Your task to perform on an android device: Check the weather Image 0: 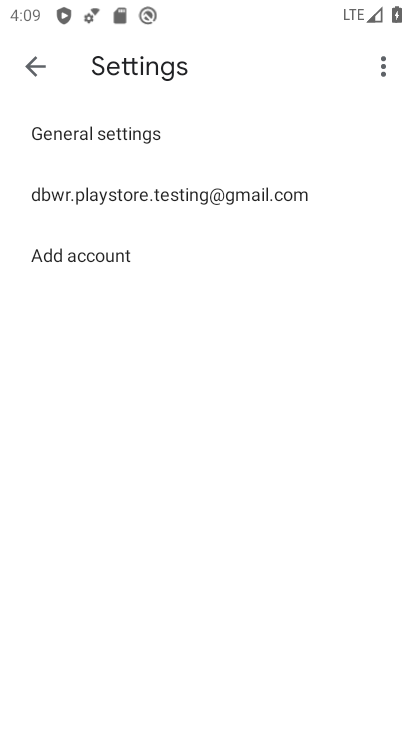
Step 0: press home button
Your task to perform on an android device: Check the weather Image 1: 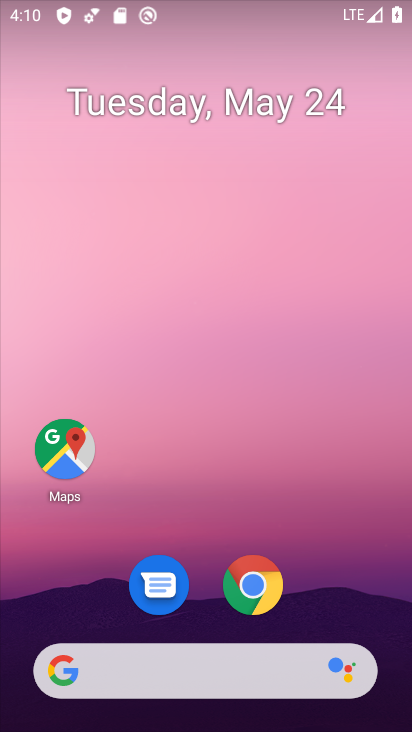
Step 1: click (225, 677)
Your task to perform on an android device: Check the weather Image 2: 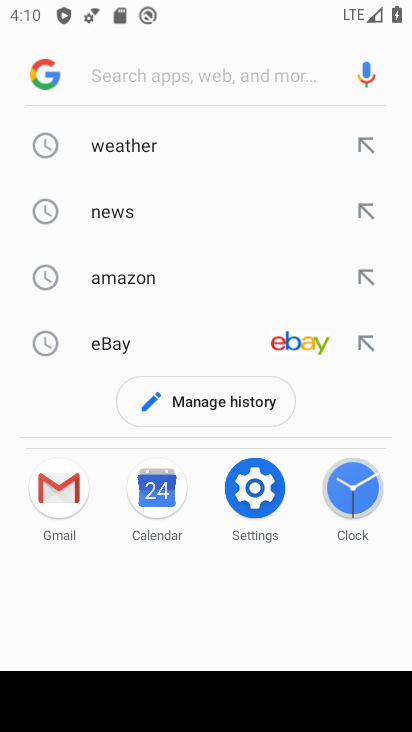
Step 2: click (112, 147)
Your task to perform on an android device: Check the weather Image 3: 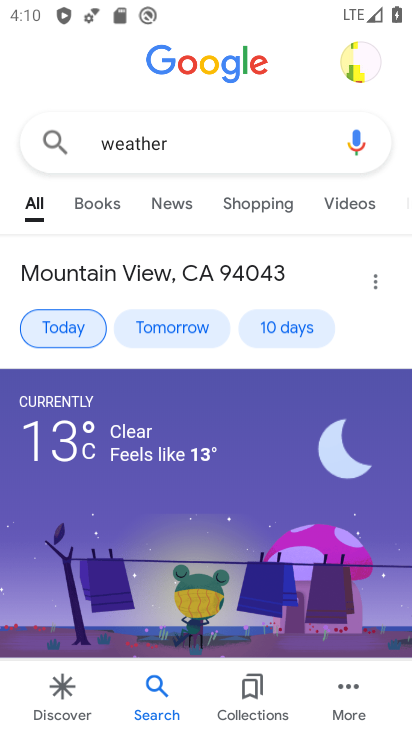
Step 3: click (79, 320)
Your task to perform on an android device: Check the weather Image 4: 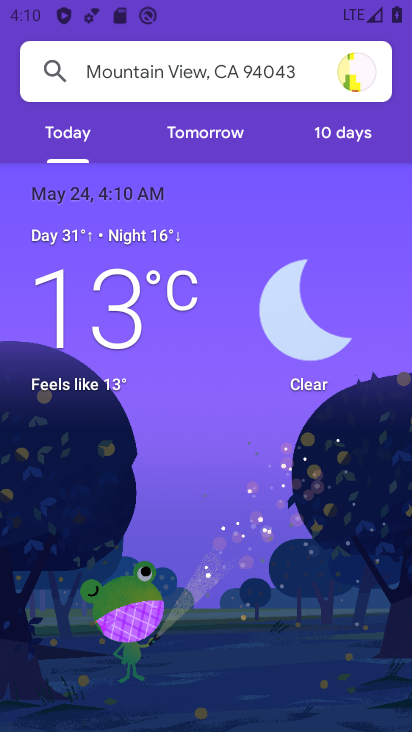
Step 4: task complete